Your task to perform on an android device: Open internet settings Image 0: 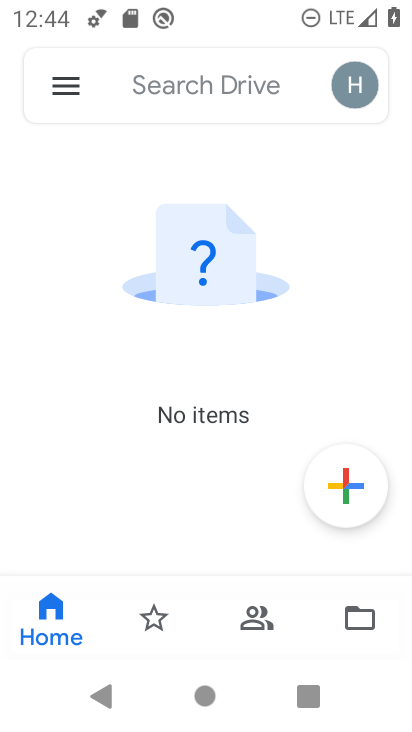
Step 0: press home button
Your task to perform on an android device: Open internet settings Image 1: 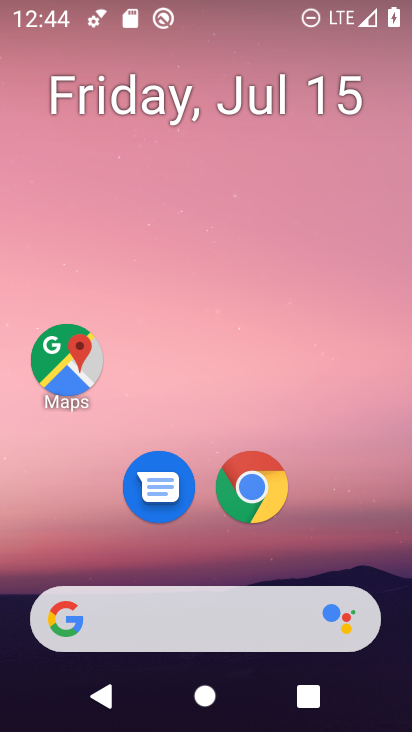
Step 1: drag from (271, 480) to (331, 79)
Your task to perform on an android device: Open internet settings Image 2: 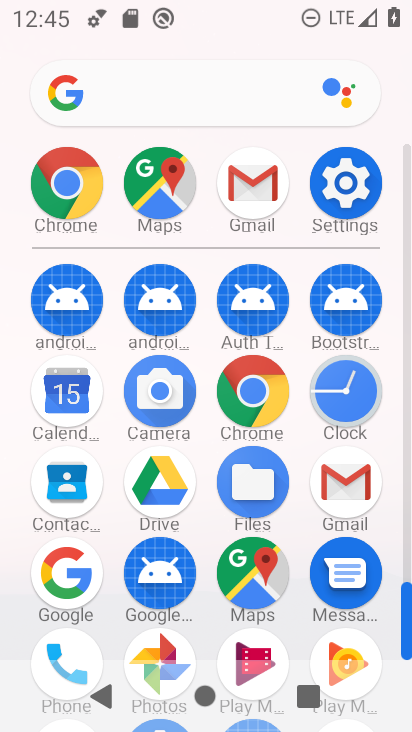
Step 2: click (376, 154)
Your task to perform on an android device: Open internet settings Image 3: 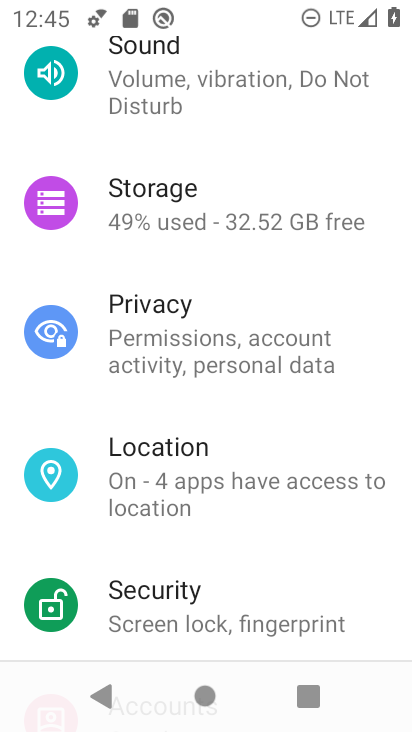
Step 3: drag from (277, 321) to (206, 671)
Your task to perform on an android device: Open internet settings Image 4: 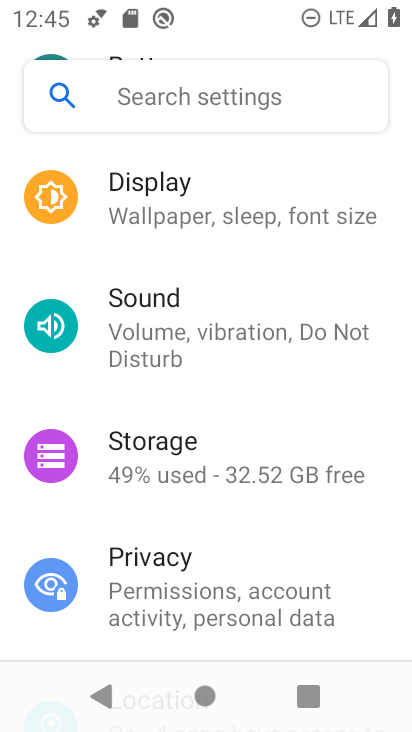
Step 4: drag from (264, 248) to (195, 727)
Your task to perform on an android device: Open internet settings Image 5: 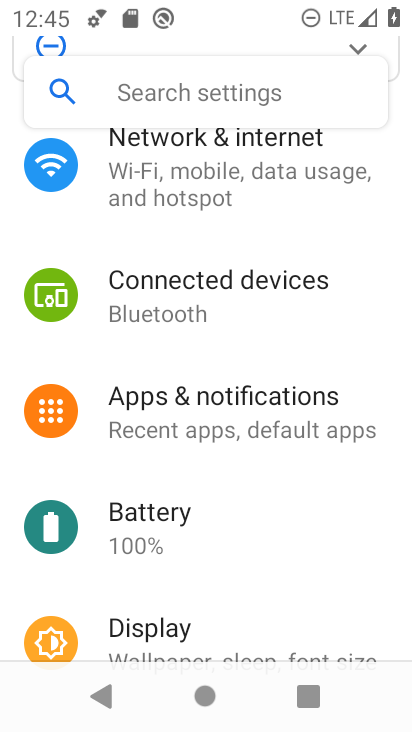
Step 5: drag from (256, 445) to (293, 729)
Your task to perform on an android device: Open internet settings Image 6: 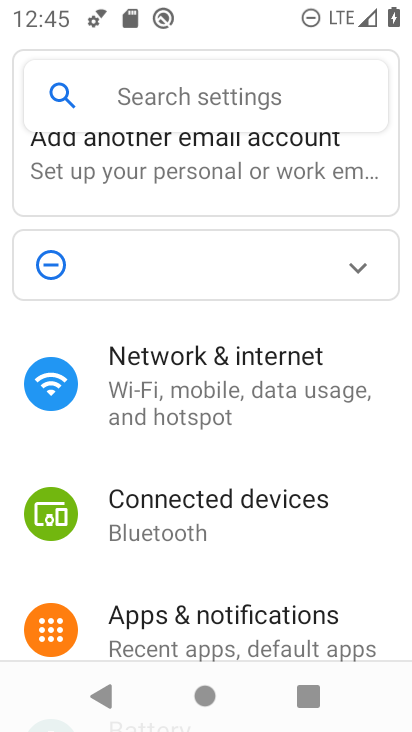
Step 6: click (272, 400)
Your task to perform on an android device: Open internet settings Image 7: 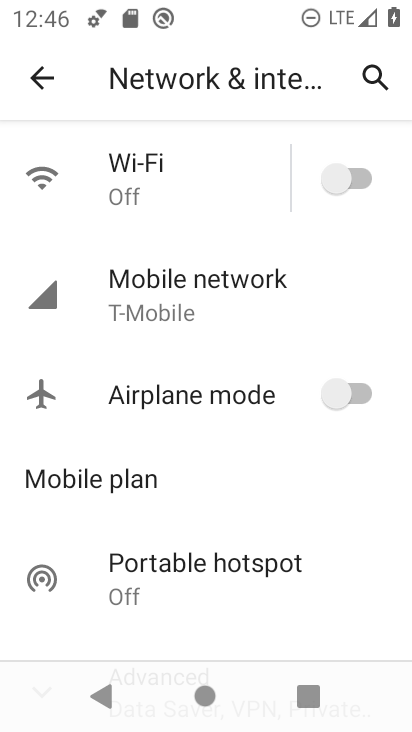
Step 7: click (250, 317)
Your task to perform on an android device: Open internet settings Image 8: 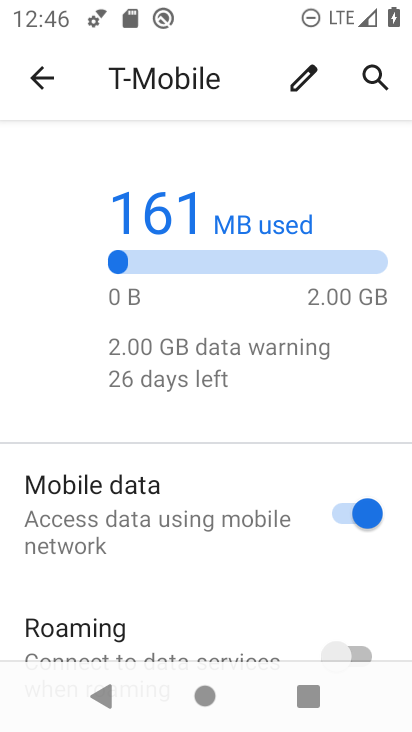
Step 8: task complete